Your task to perform on an android device: turn on data saver in the chrome app Image 0: 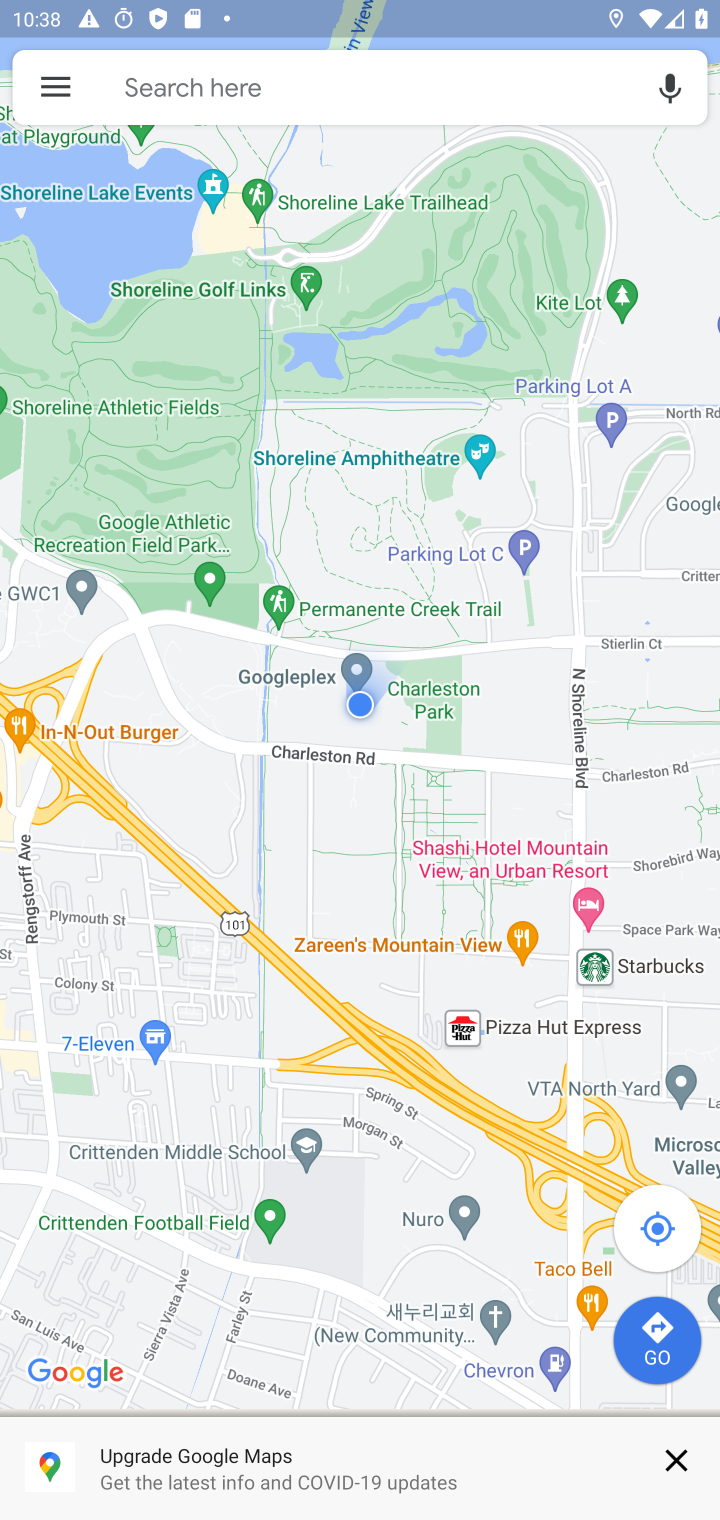
Step 0: press home button
Your task to perform on an android device: turn on data saver in the chrome app Image 1: 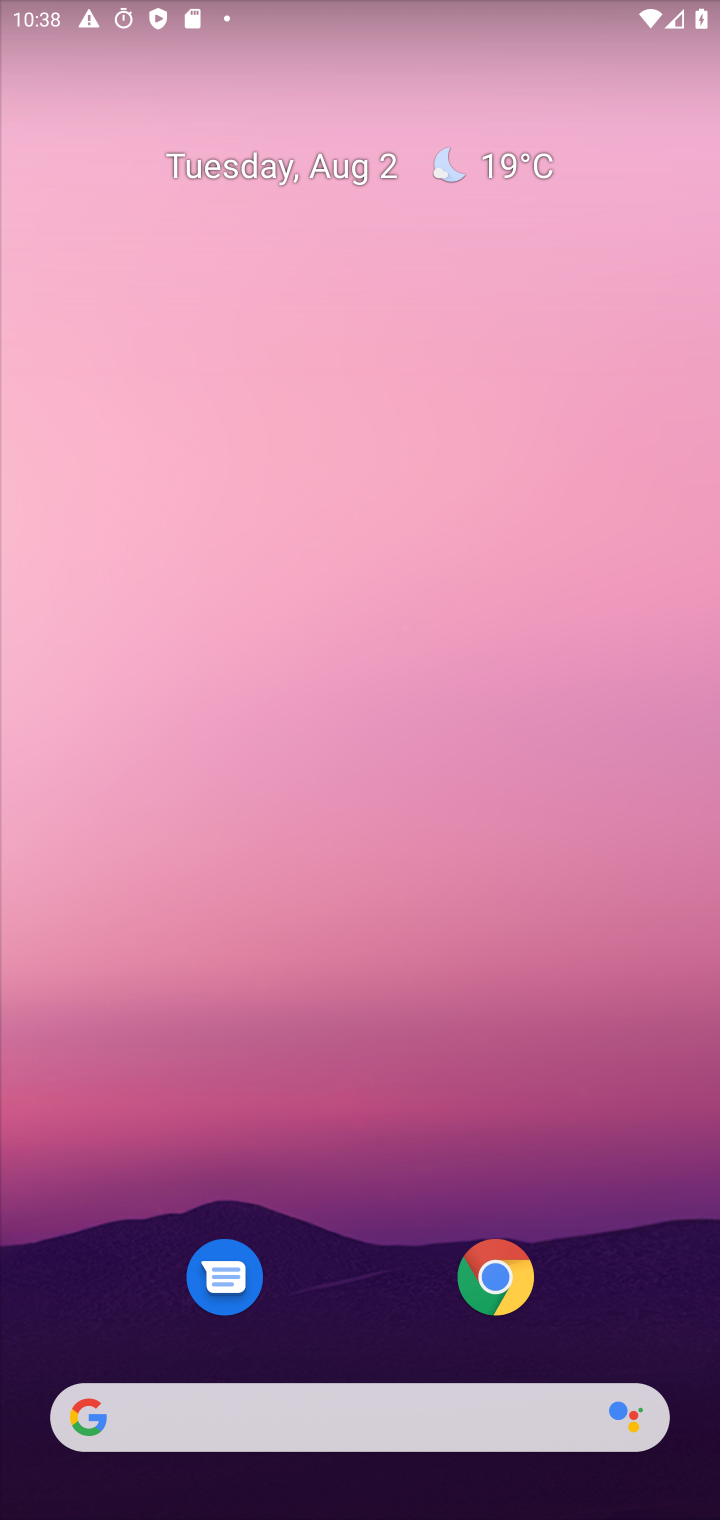
Step 1: click (516, 1264)
Your task to perform on an android device: turn on data saver in the chrome app Image 2: 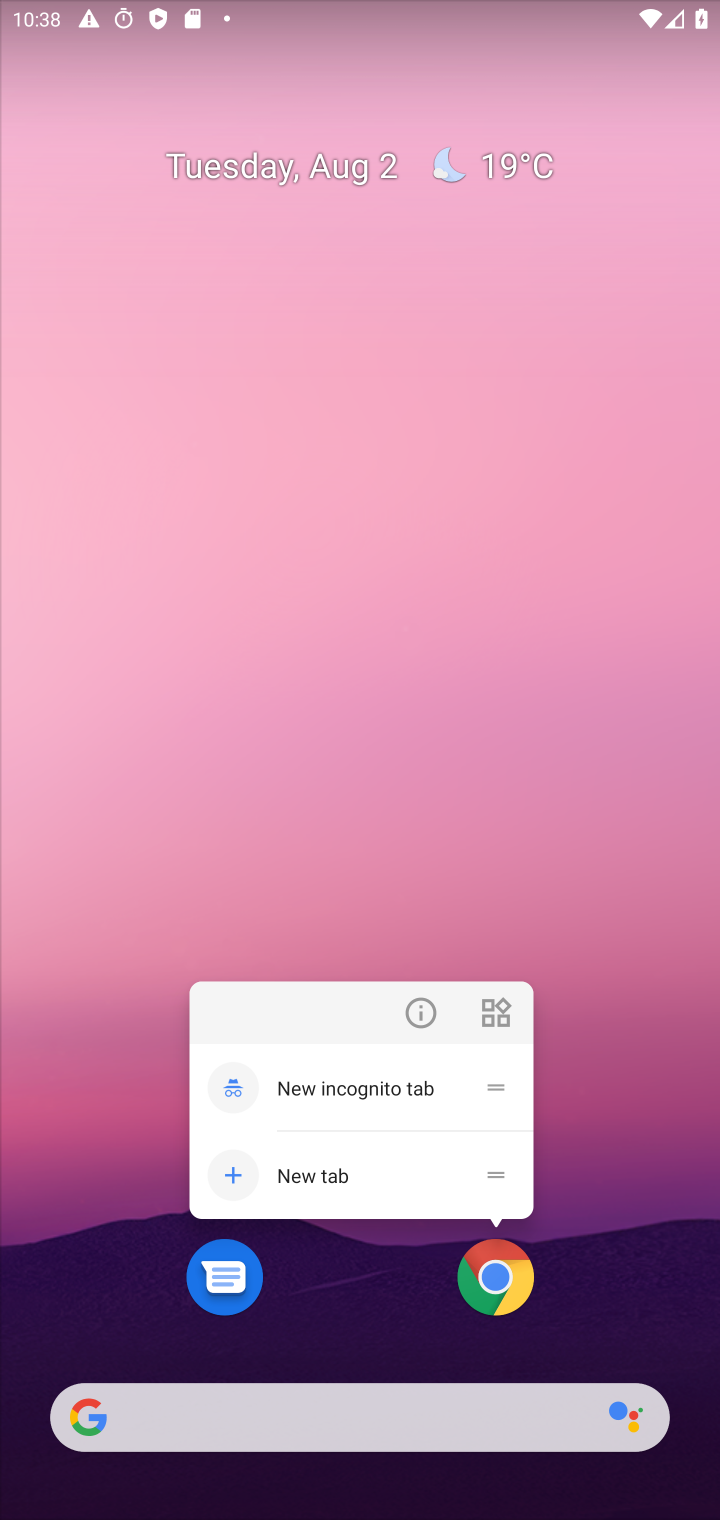
Step 2: click (513, 1262)
Your task to perform on an android device: turn on data saver in the chrome app Image 3: 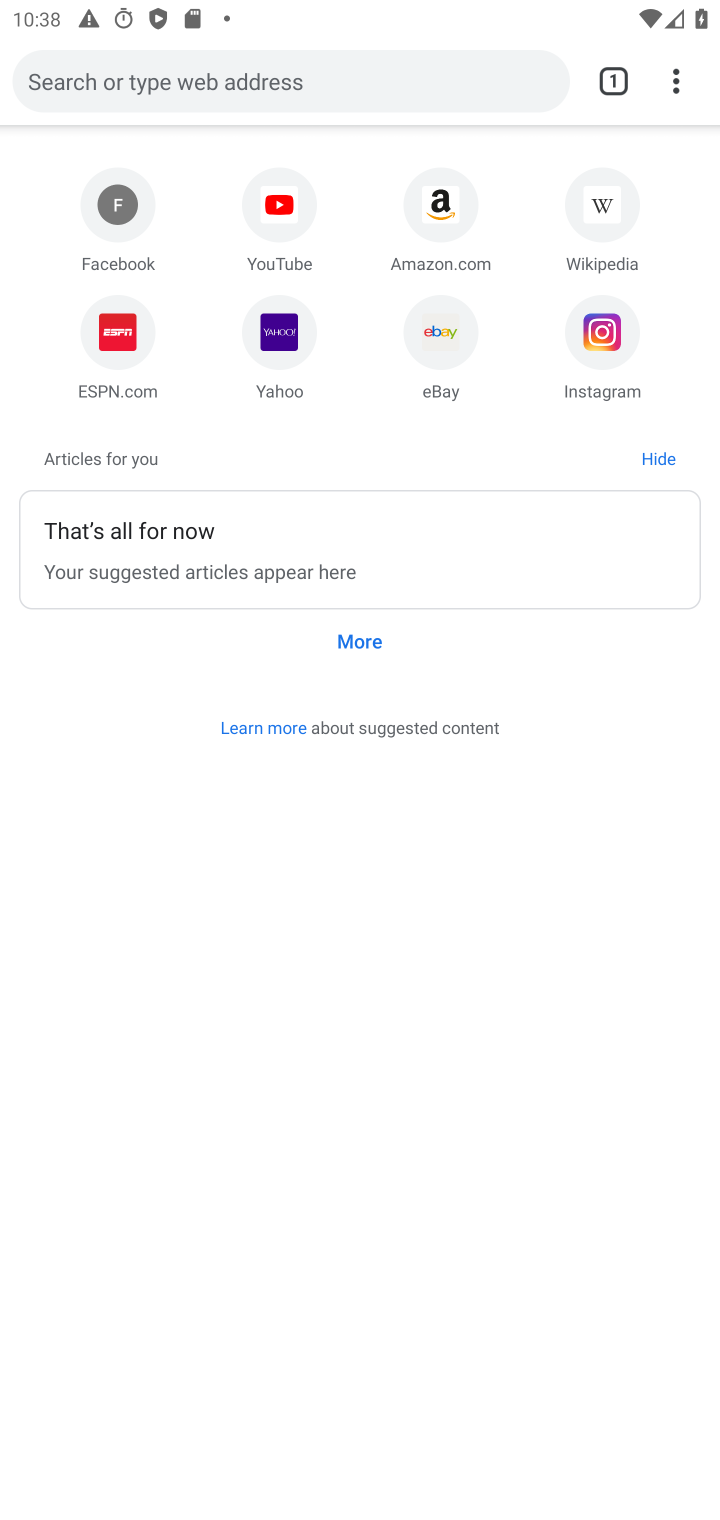
Step 3: click (679, 88)
Your task to perform on an android device: turn on data saver in the chrome app Image 4: 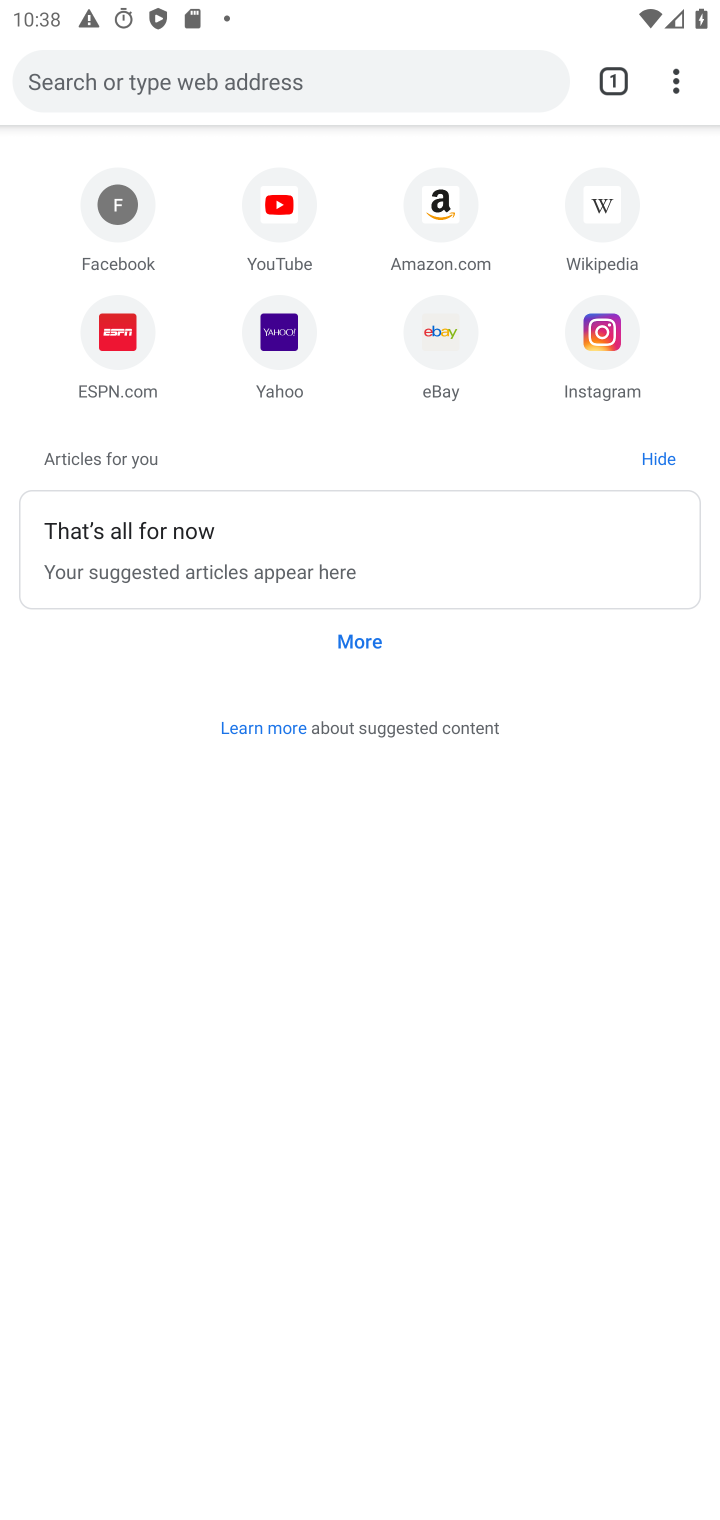
Step 4: drag from (677, 77) to (392, 681)
Your task to perform on an android device: turn on data saver in the chrome app Image 5: 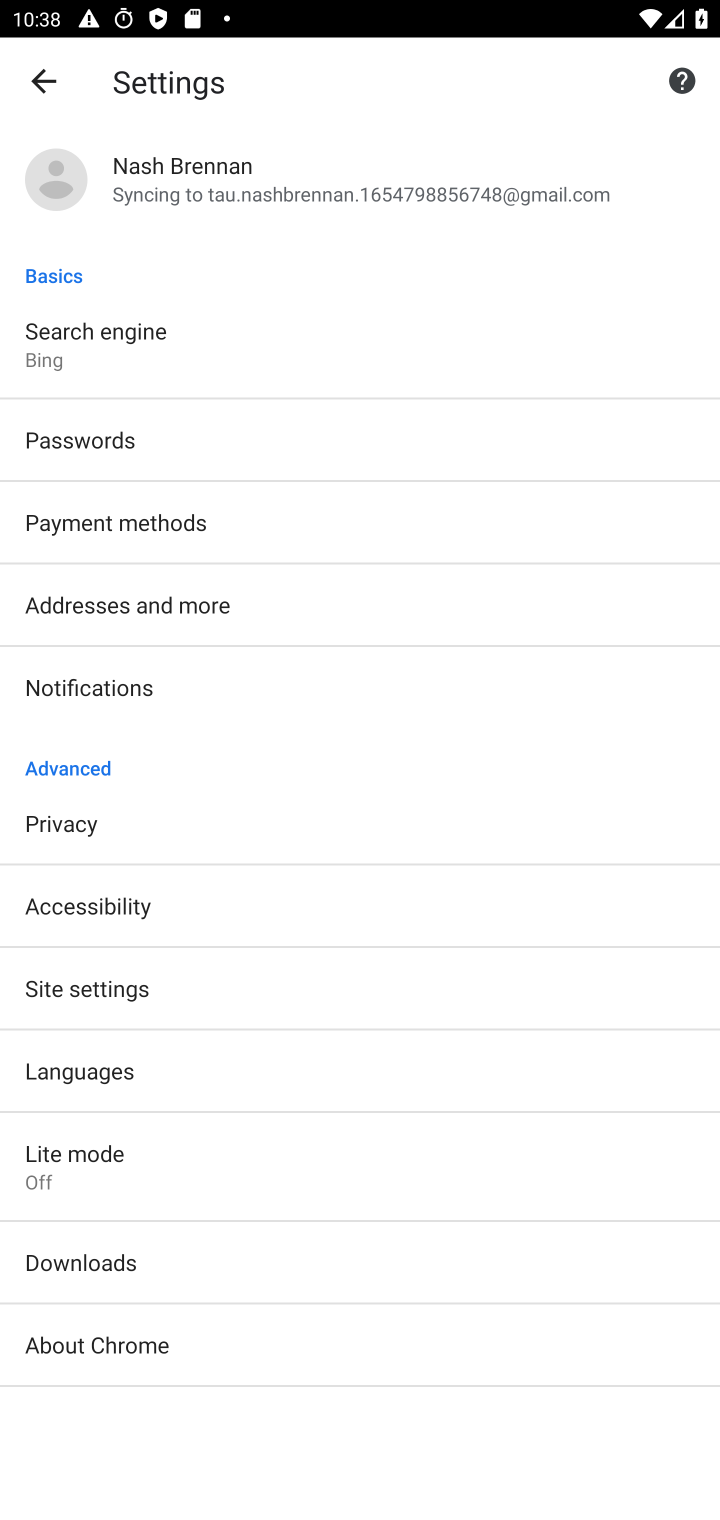
Step 5: click (118, 1166)
Your task to perform on an android device: turn on data saver in the chrome app Image 6: 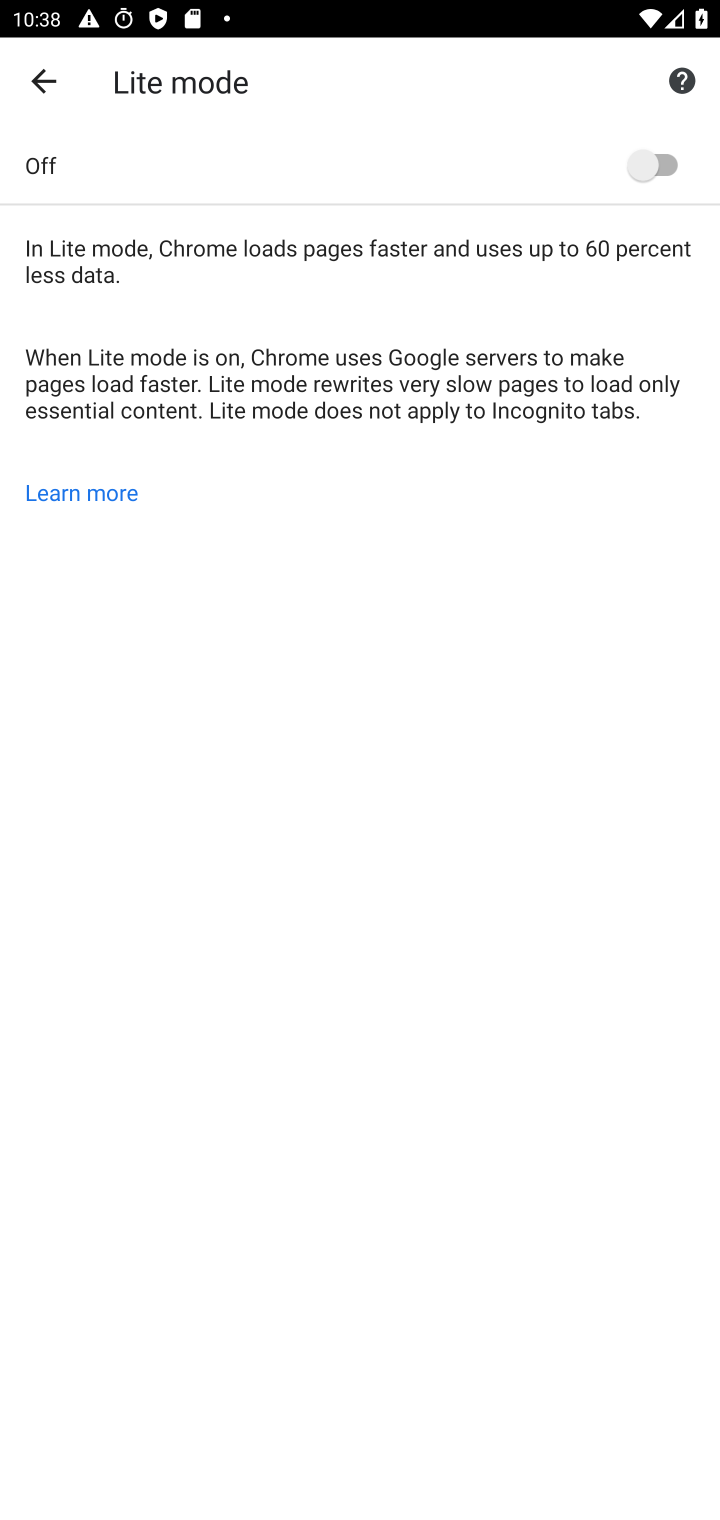
Step 6: click (651, 145)
Your task to perform on an android device: turn on data saver in the chrome app Image 7: 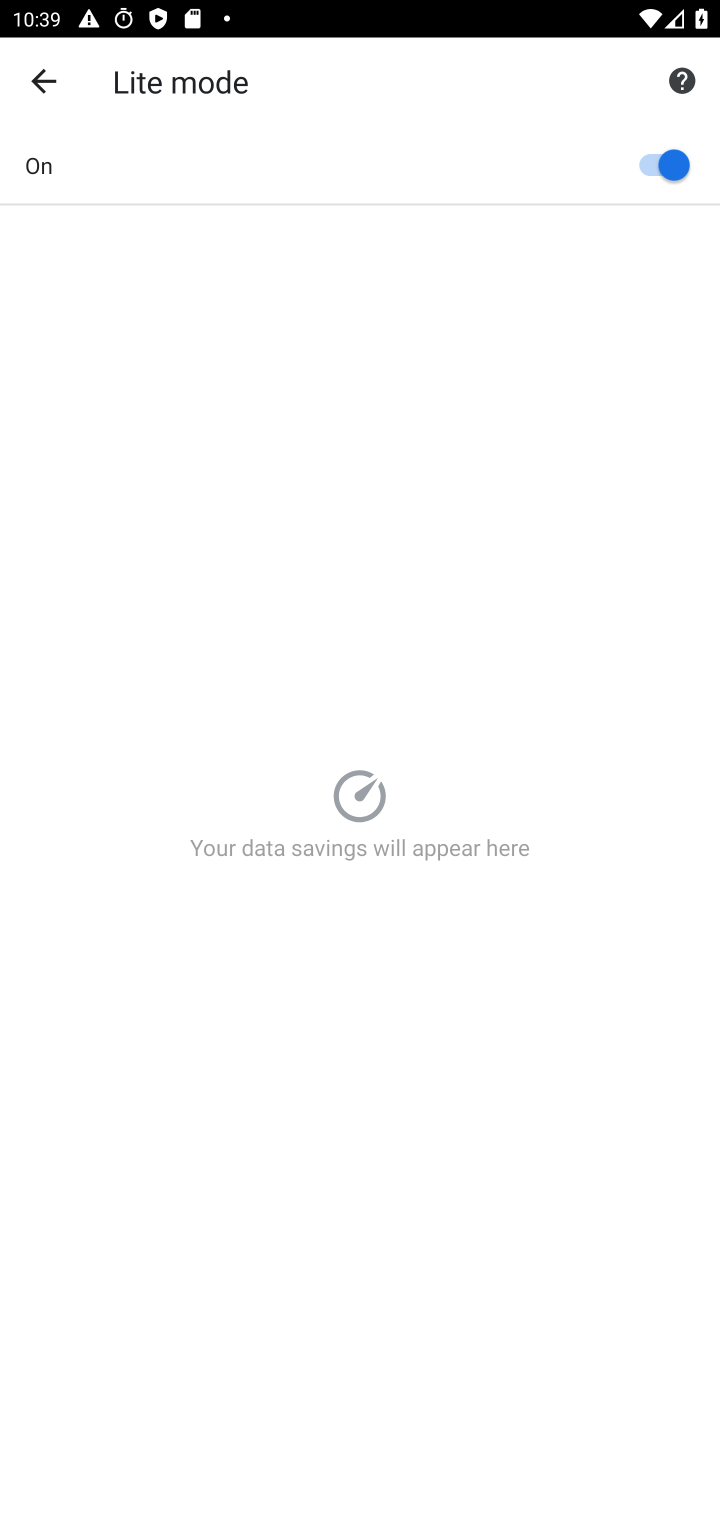
Step 7: task complete